Your task to perform on an android device: Open Youtube and go to the subscriptions tab Image 0: 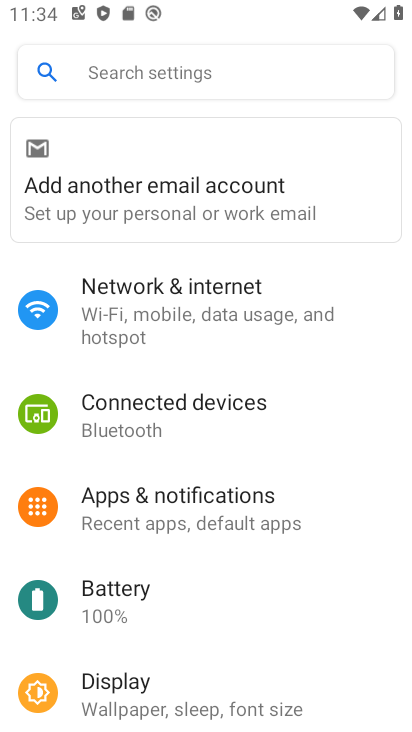
Step 0: press home button
Your task to perform on an android device: Open Youtube and go to the subscriptions tab Image 1: 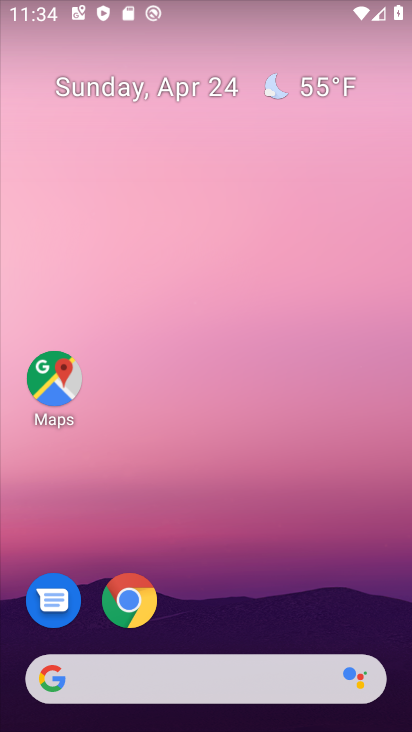
Step 1: drag from (245, 620) to (230, 110)
Your task to perform on an android device: Open Youtube and go to the subscriptions tab Image 2: 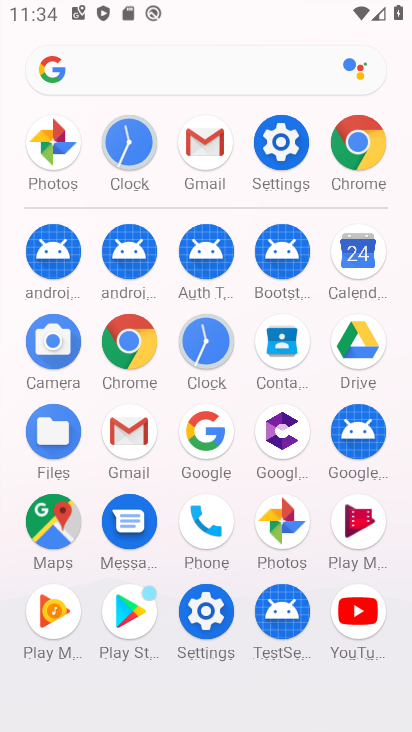
Step 2: click (368, 608)
Your task to perform on an android device: Open Youtube and go to the subscriptions tab Image 3: 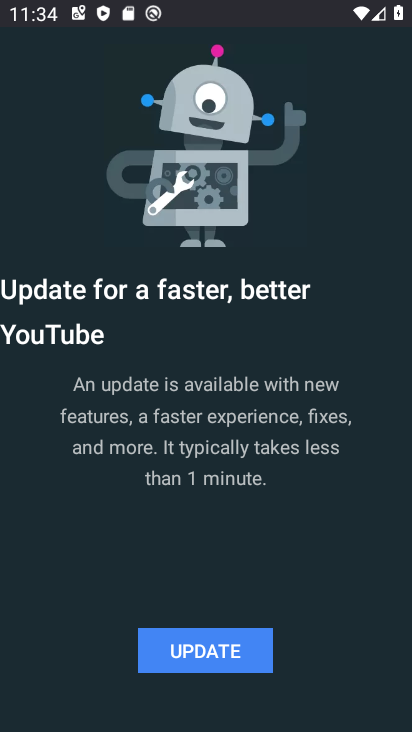
Step 3: click (191, 634)
Your task to perform on an android device: Open Youtube and go to the subscriptions tab Image 4: 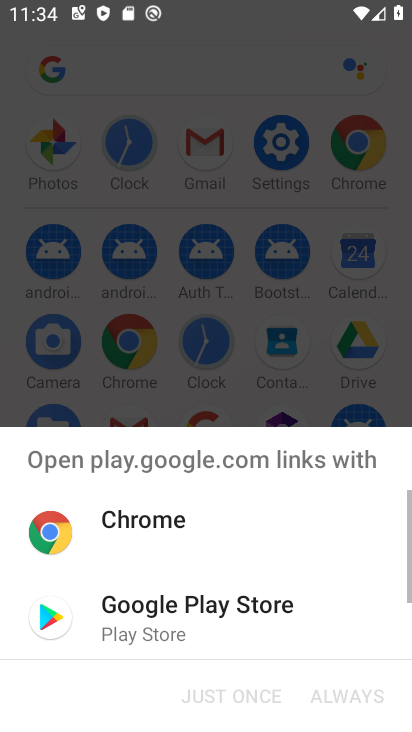
Step 4: click (191, 634)
Your task to perform on an android device: Open Youtube and go to the subscriptions tab Image 5: 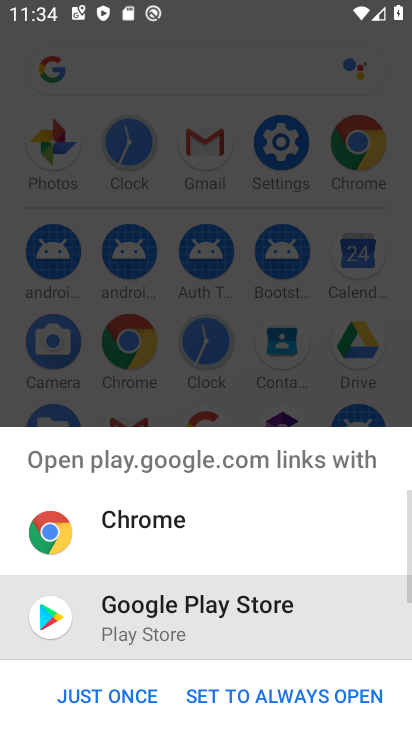
Step 5: click (77, 697)
Your task to perform on an android device: Open Youtube and go to the subscriptions tab Image 6: 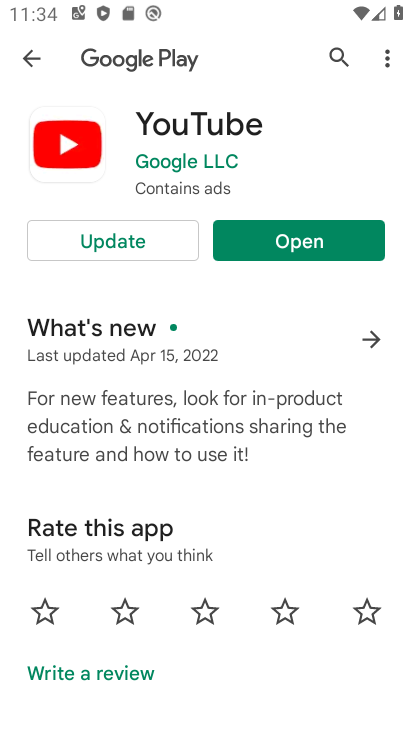
Step 6: click (301, 250)
Your task to perform on an android device: Open Youtube and go to the subscriptions tab Image 7: 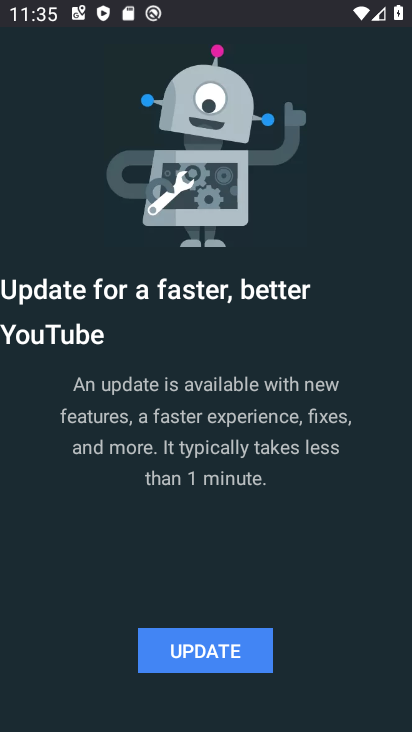
Step 7: click (184, 650)
Your task to perform on an android device: Open Youtube and go to the subscriptions tab Image 8: 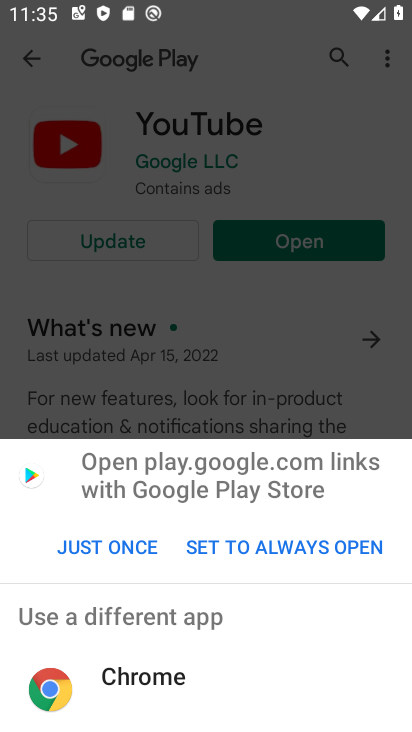
Step 8: click (104, 552)
Your task to perform on an android device: Open Youtube and go to the subscriptions tab Image 9: 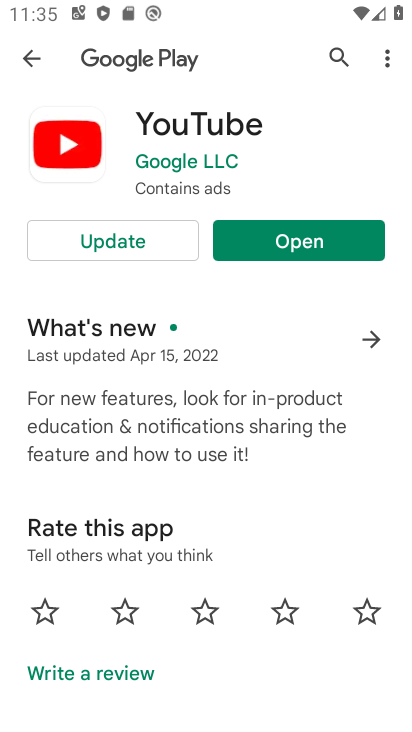
Step 9: click (151, 230)
Your task to perform on an android device: Open Youtube and go to the subscriptions tab Image 10: 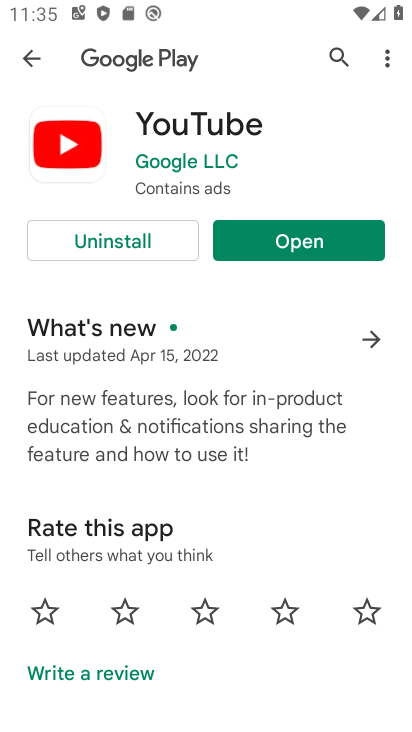
Step 10: click (266, 247)
Your task to perform on an android device: Open Youtube and go to the subscriptions tab Image 11: 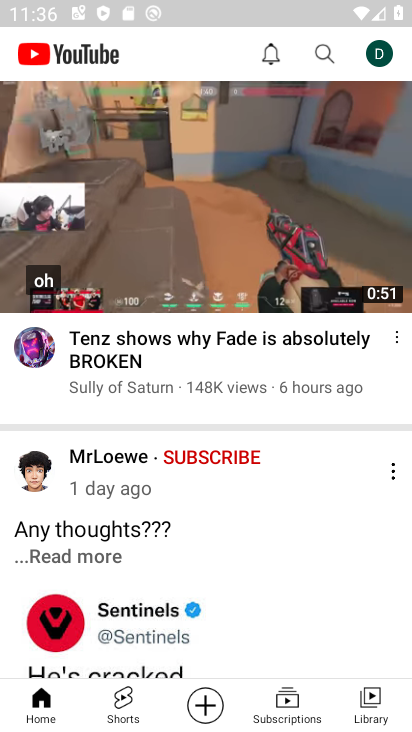
Step 11: click (302, 701)
Your task to perform on an android device: Open Youtube and go to the subscriptions tab Image 12: 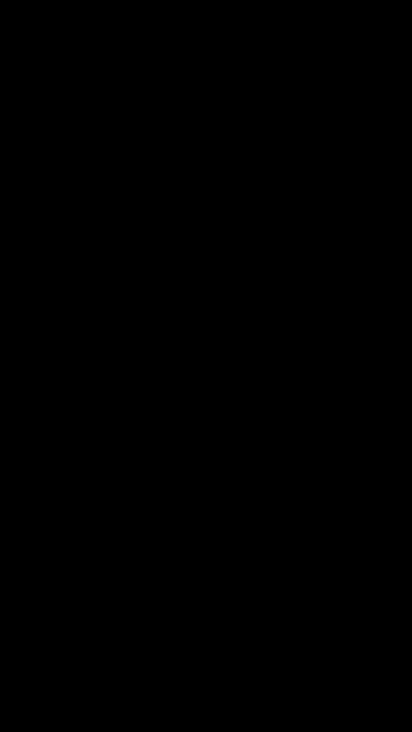
Step 12: task complete